Your task to perform on an android device: When is my next meeting? Image 0: 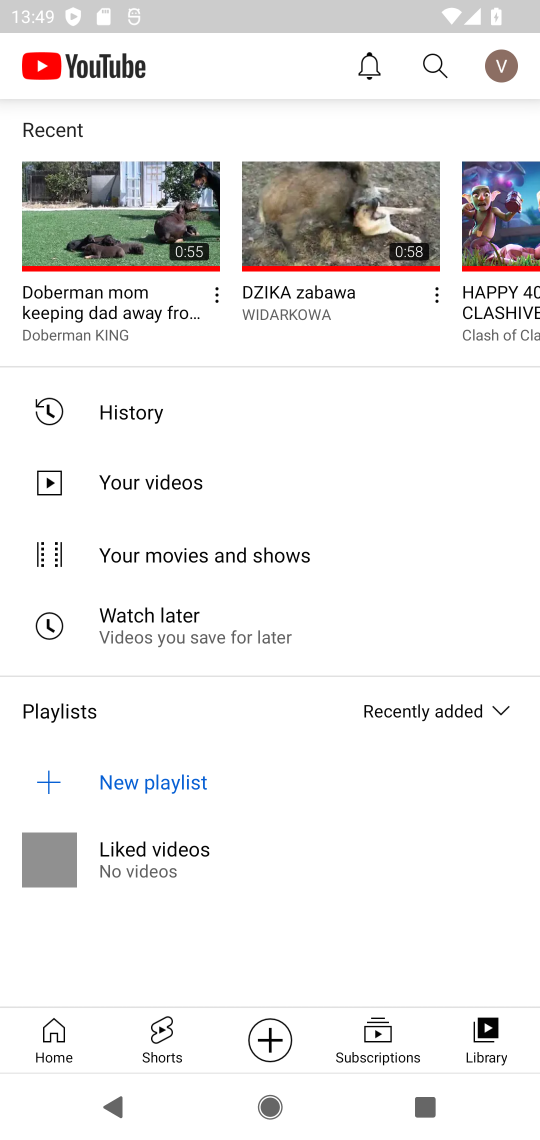
Step 0: press home button
Your task to perform on an android device: When is my next meeting? Image 1: 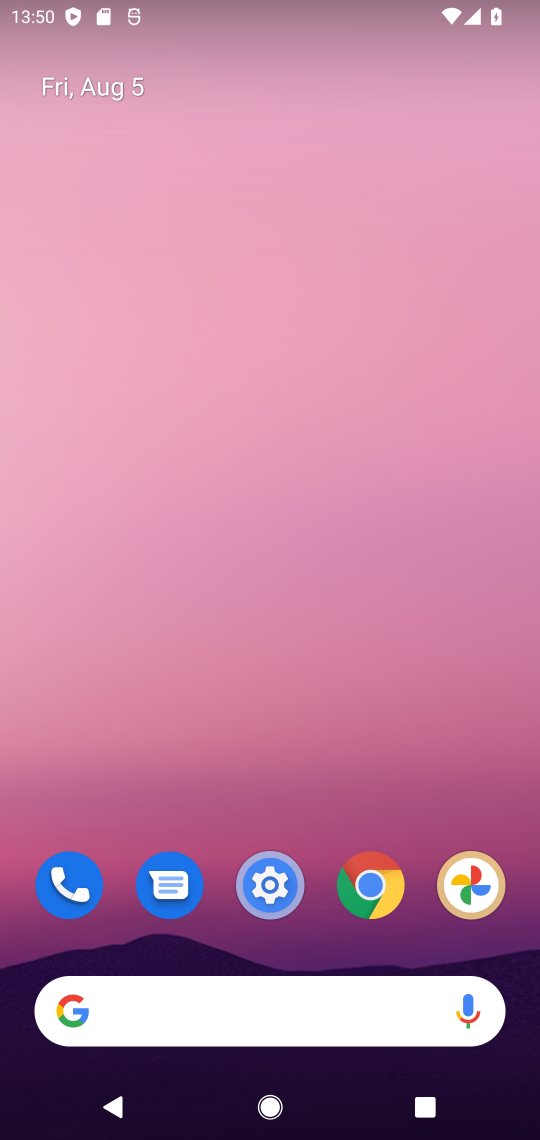
Step 1: drag from (301, 820) to (258, 200)
Your task to perform on an android device: When is my next meeting? Image 2: 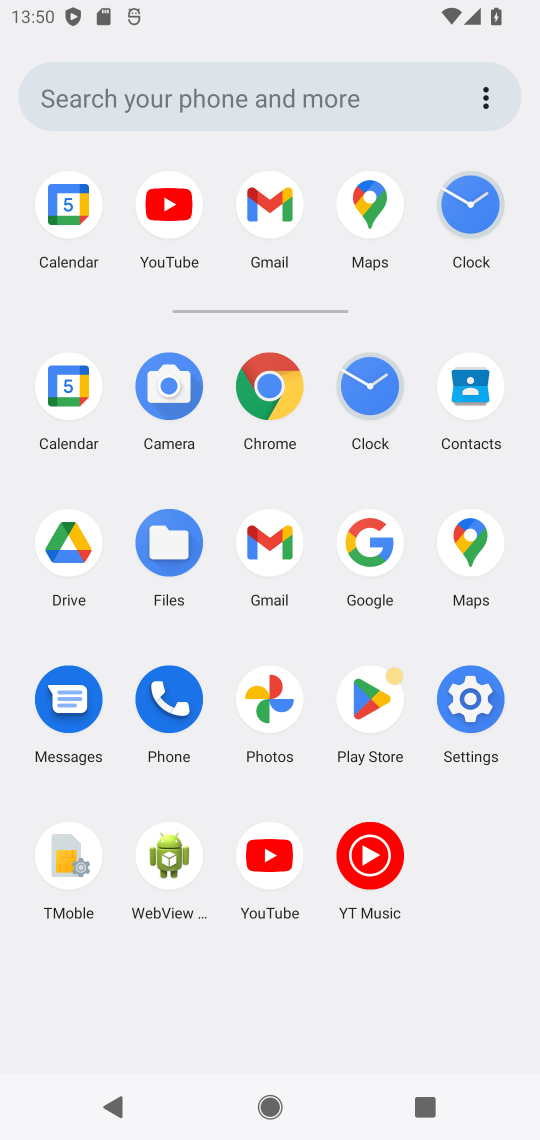
Step 2: click (65, 376)
Your task to perform on an android device: When is my next meeting? Image 3: 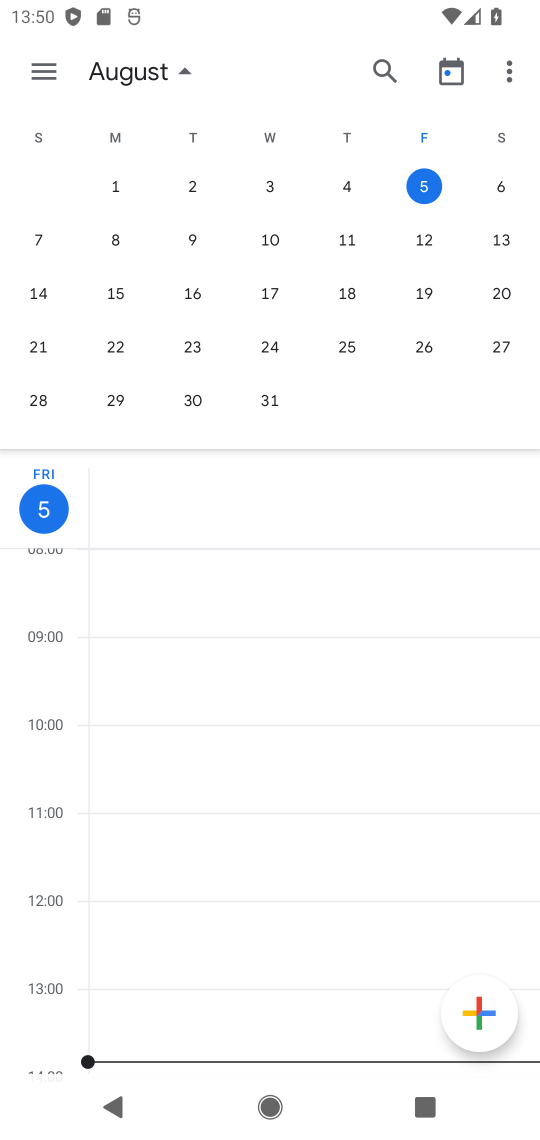
Step 3: click (40, 73)
Your task to perform on an android device: When is my next meeting? Image 4: 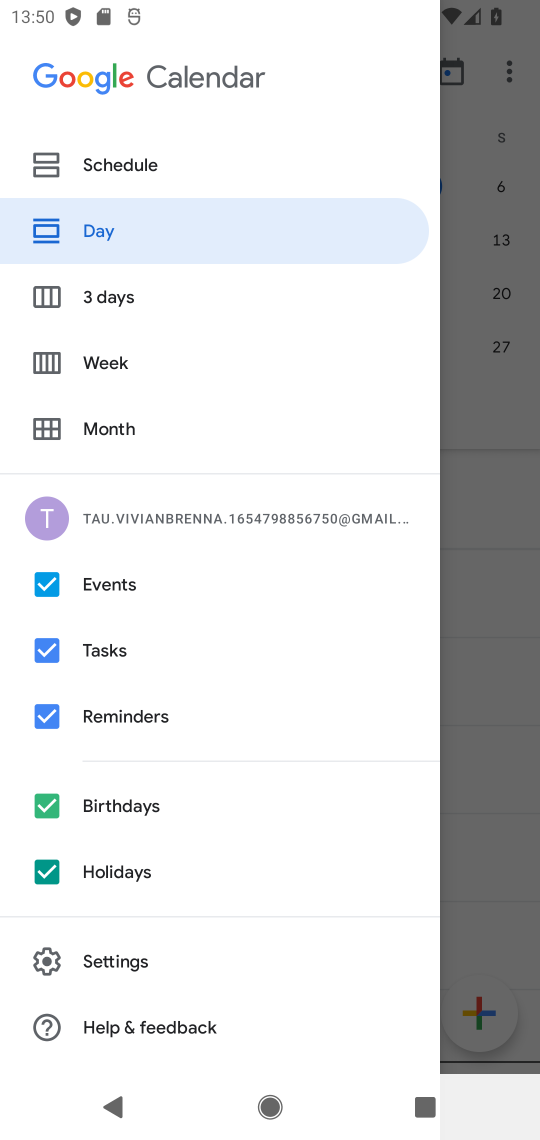
Step 4: click (132, 161)
Your task to perform on an android device: When is my next meeting? Image 5: 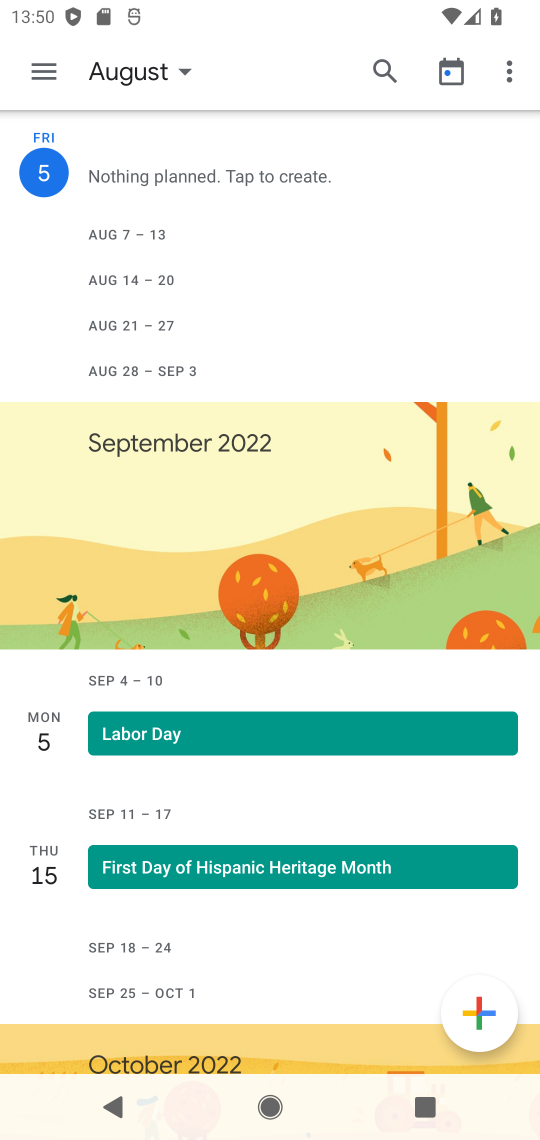
Step 5: task complete